Your task to perform on an android device: Open calendar and show me the third week of next month Image 0: 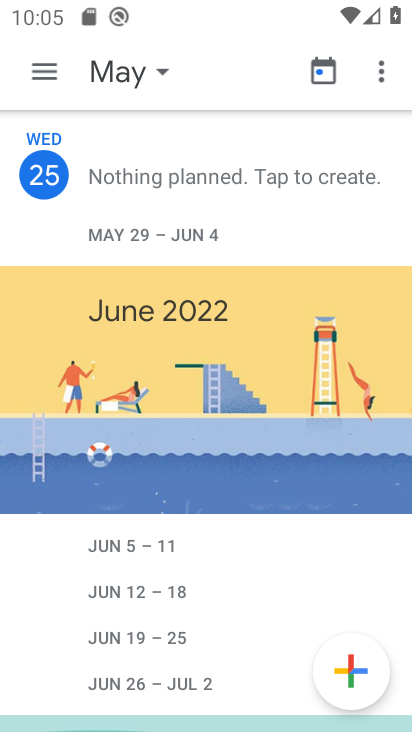
Step 0: press home button
Your task to perform on an android device: Open calendar and show me the third week of next month Image 1: 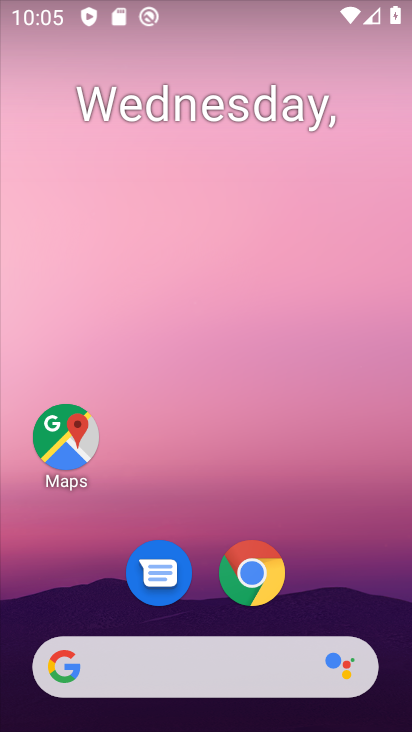
Step 1: drag from (197, 422) to (244, 112)
Your task to perform on an android device: Open calendar and show me the third week of next month Image 2: 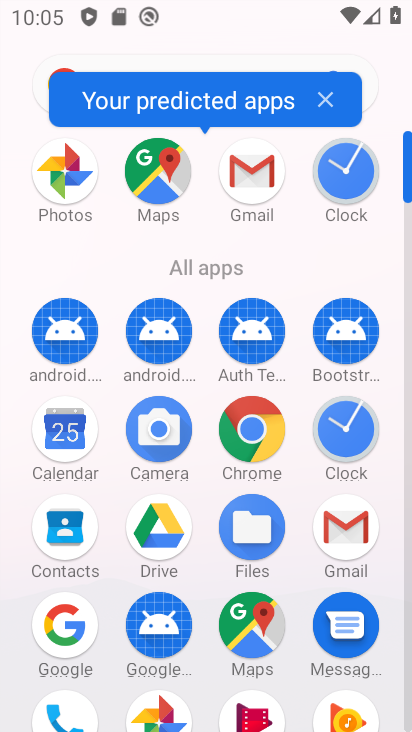
Step 2: click (75, 441)
Your task to perform on an android device: Open calendar and show me the third week of next month Image 3: 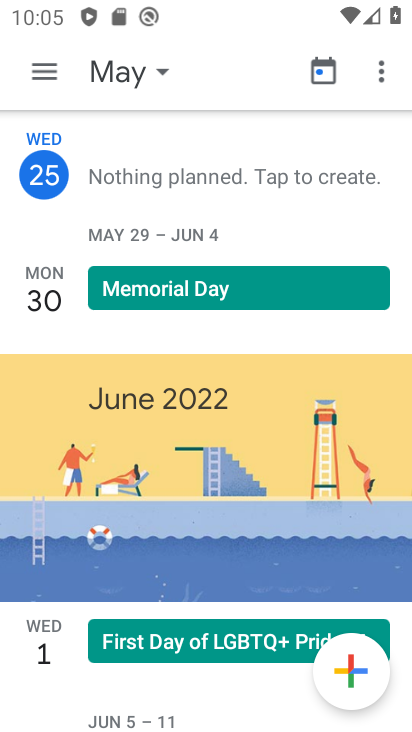
Step 3: click (145, 72)
Your task to perform on an android device: Open calendar and show me the third week of next month Image 4: 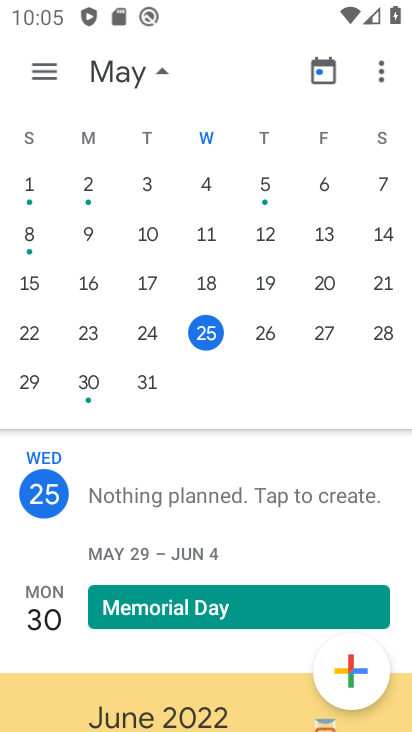
Step 4: drag from (387, 268) to (42, 241)
Your task to perform on an android device: Open calendar and show me the third week of next month Image 5: 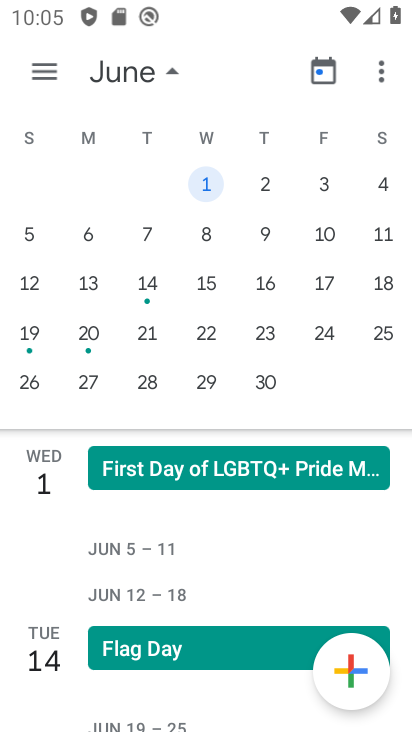
Step 5: click (267, 287)
Your task to perform on an android device: Open calendar and show me the third week of next month Image 6: 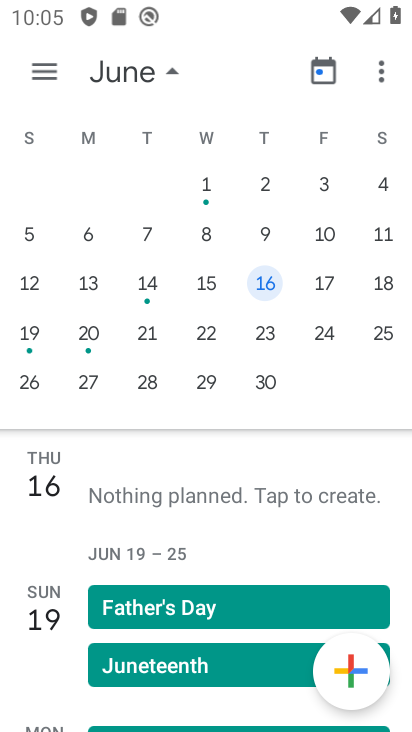
Step 6: click (208, 285)
Your task to perform on an android device: Open calendar and show me the third week of next month Image 7: 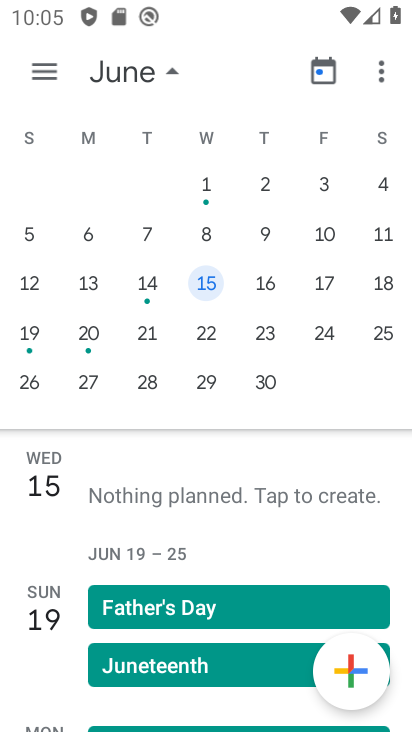
Step 7: click (146, 281)
Your task to perform on an android device: Open calendar and show me the third week of next month Image 8: 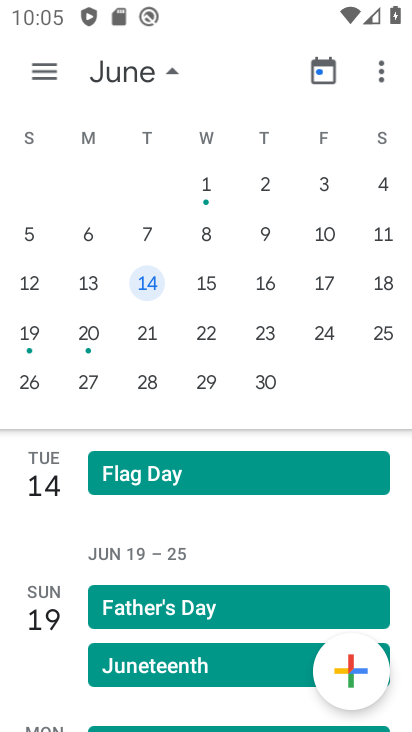
Step 8: click (83, 289)
Your task to perform on an android device: Open calendar and show me the third week of next month Image 9: 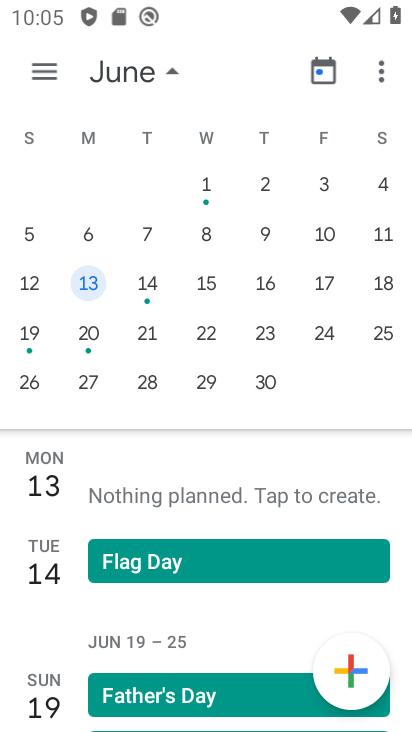
Step 9: click (12, 285)
Your task to perform on an android device: Open calendar and show me the third week of next month Image 10: 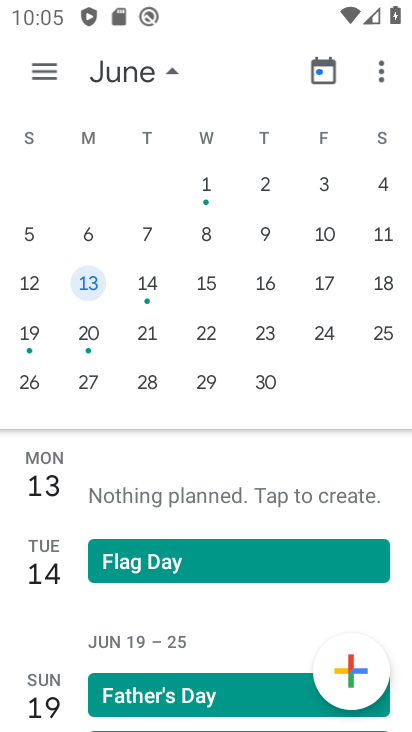
Step 10: click (379, 277)
Your task to perform on an android device: Open calendar and show me the third week of next month Image 11: 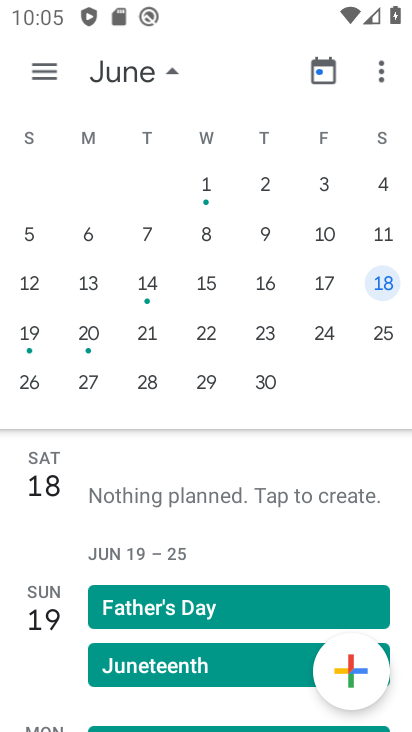
Step 11: task complete